Your task to perform on an android device: Open notification settings Image 0: 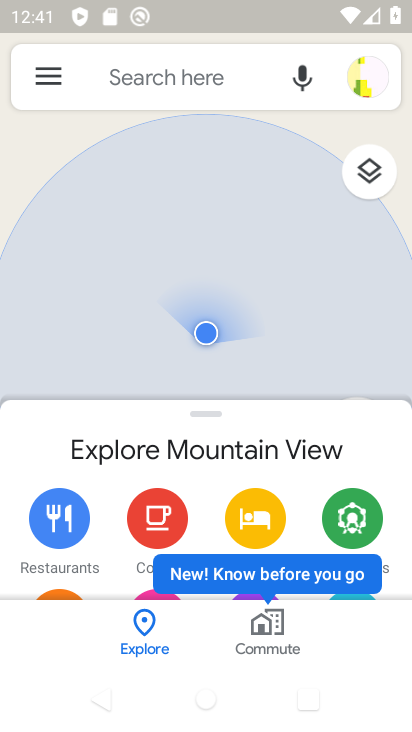
Step 0: press back button
Your task to perform on an android device: Open notification settings Image 1: 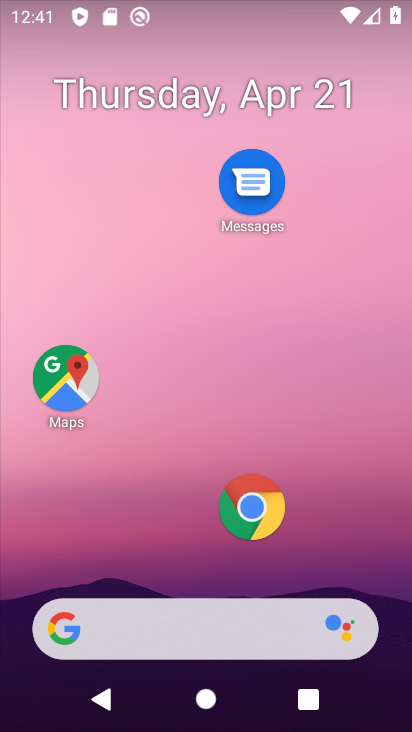
Step 1: drag from (117, 546) to (230, 16)
Your task to perform on an android device: Open notification settings Image 2: 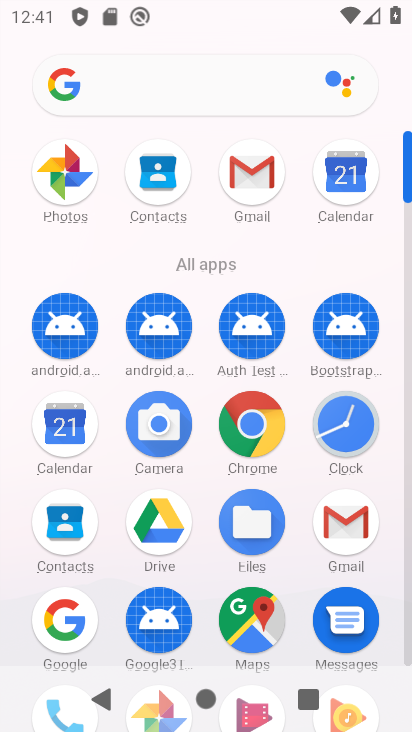
Step 2: drag from (179, 651) to (227, 276)
Your task to perform on an android device: Open notification settings Image 3: 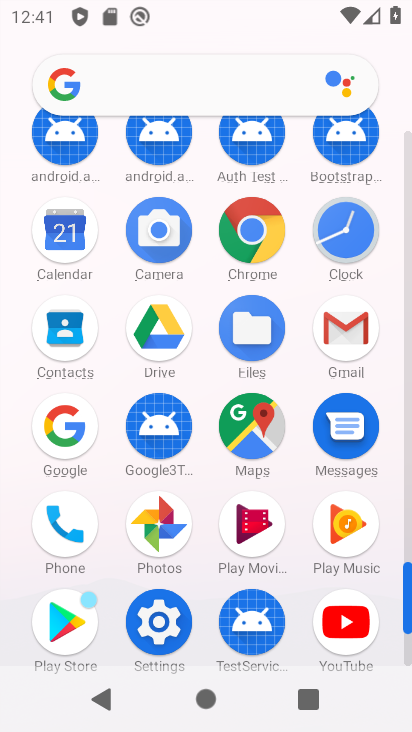
Step 3: click (158, 633)
Your task to perform on an android device: Open notification settings Image 4: 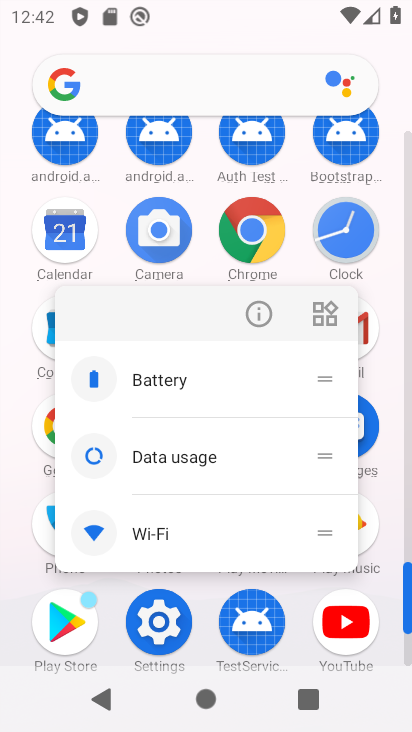
Step 4: click (162, 622)
Your task to perform on an android device: Open notification settings Image 5: 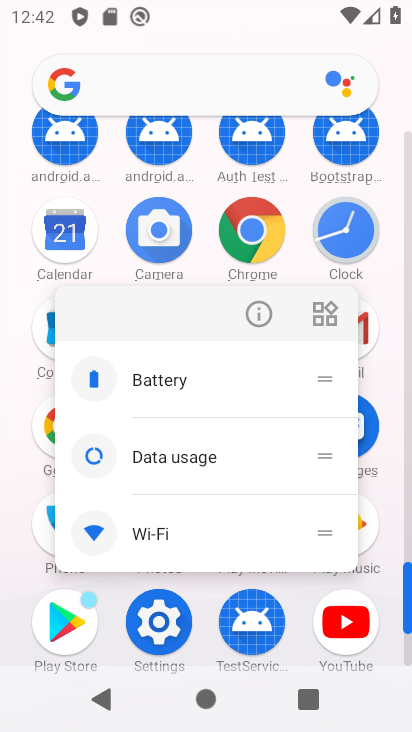
Step 5: click (160, 626)
Your task to perform on an android device: Open notification settings Image 6: 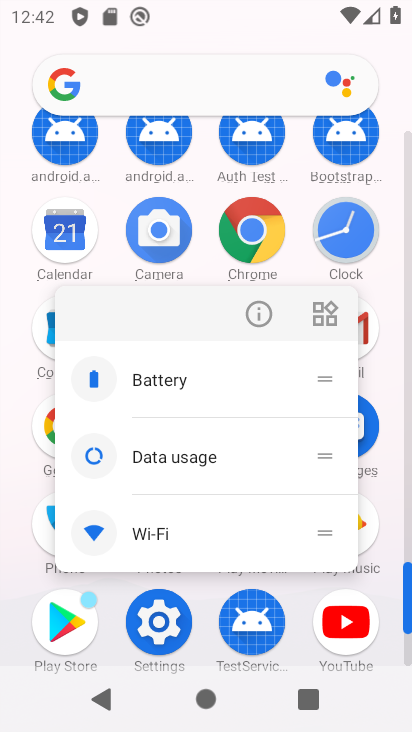
Step 6: click (160, 626)
Your task to perform on an android device: Open notification settings Image 7: 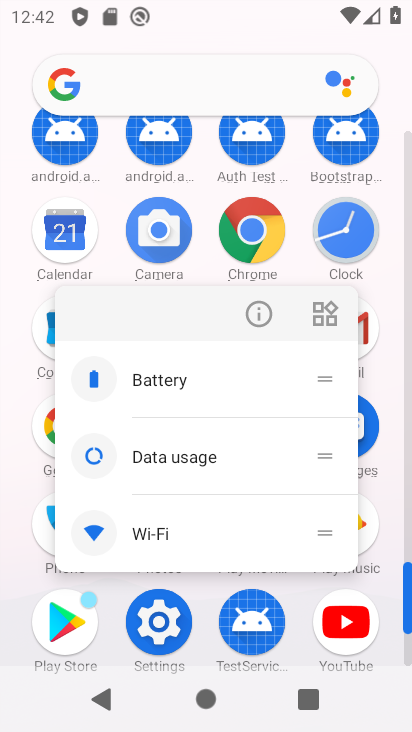
Step 7: click (175, 632)
Your task to perform on an android device: Open notification settings Image 8: 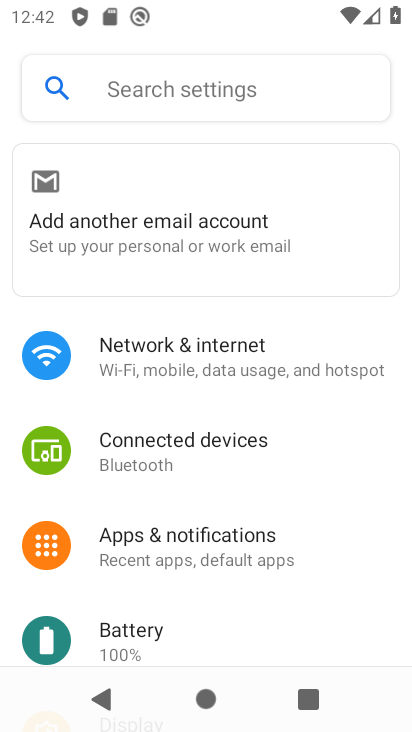
Step 8: click (226, 551)
Your task to perform on an android device: Open notification settings Image 9: 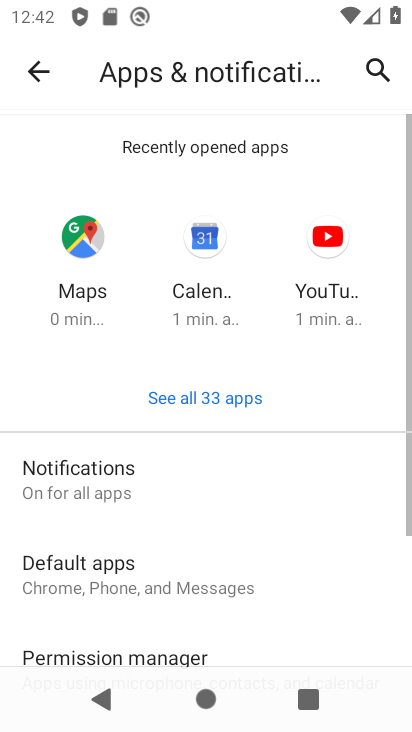
Step 9: task complete